Your task to perform on an android device: toggle pop-ups in chrome Image 0: 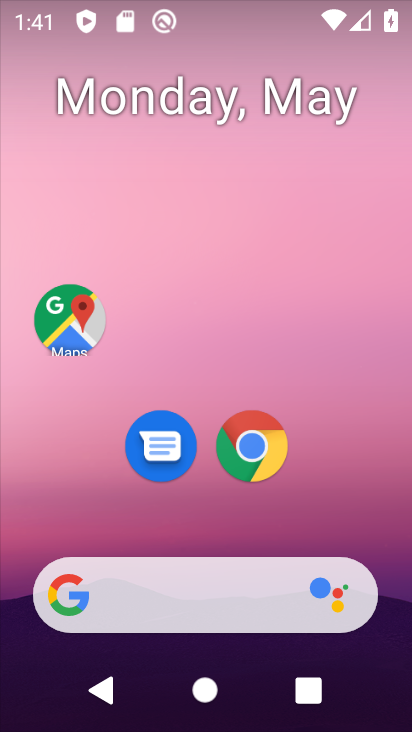
Step 0: drag from (354, 492) to (350, 87)
Your task to perform on an android device: toggle pop-ups in chrome Image 1: 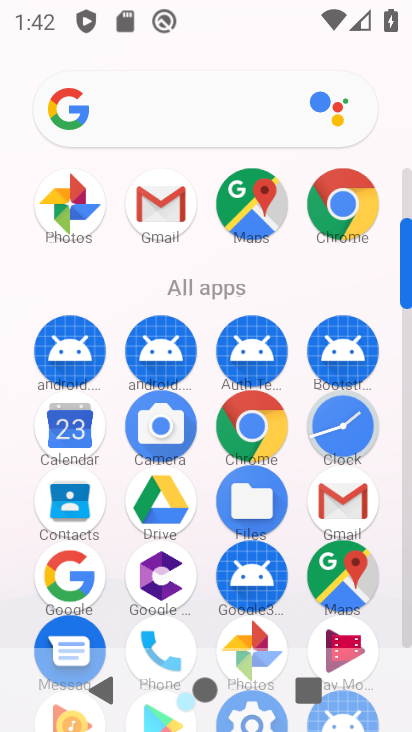
Step 1: click (234, 426)
Your task to perform on an android device: toggle pop-ups in chrome Image 2: 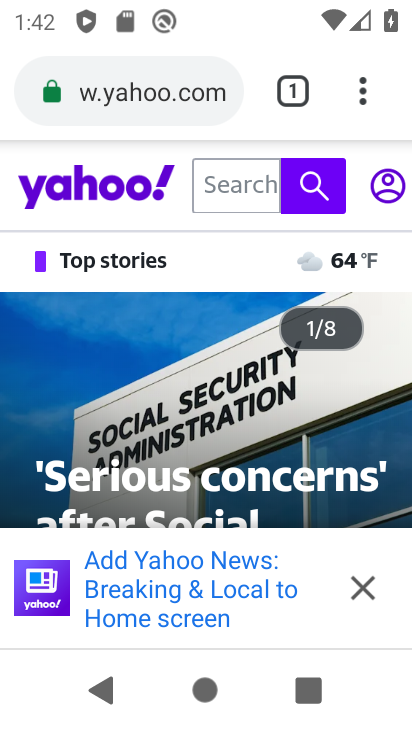
Step 2: click (368, 587)
Your task to perform on an android device: toggle pop-ups in chrome Image 3: 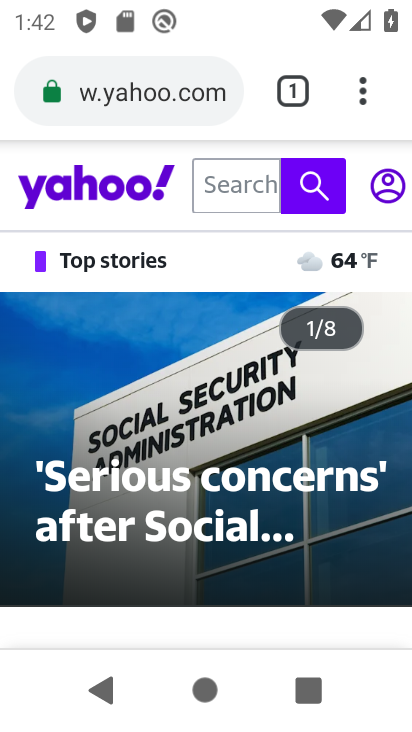
Step 3: drag from (361, 96) to (170, 489)
Your task to perform on an android device: toggle pop-ups in chrome Image 4: 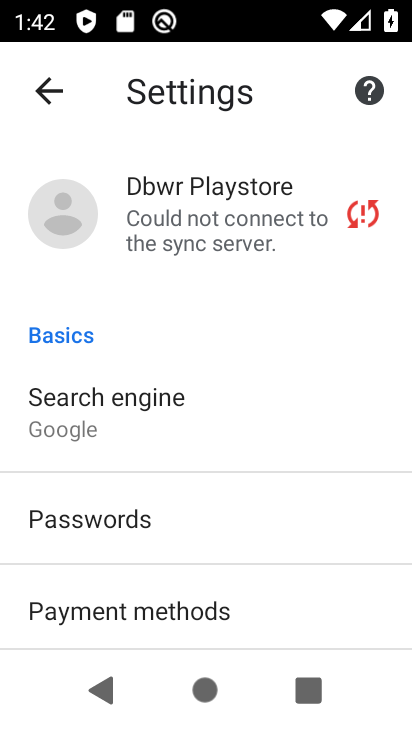
Step 4: drag from (255, 556) to (291, 242)
Your task to perform on an android device: toggle pop-ups in chrome Image 5: 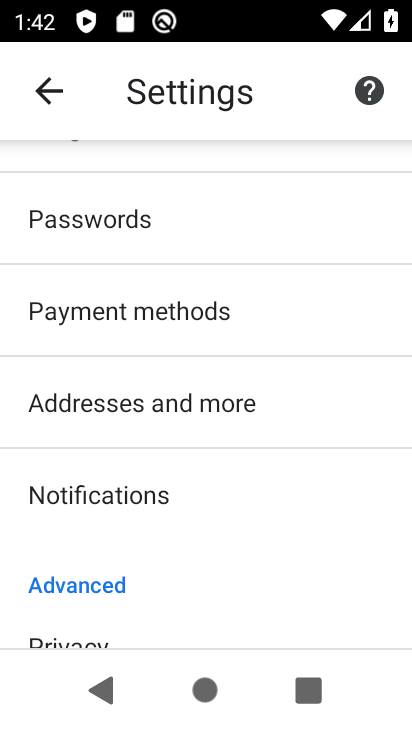
Step 5: drag from (255, 554) to (296, 287)
Your task to perform on an android device: toggle pop-ups in chrome Image 6: 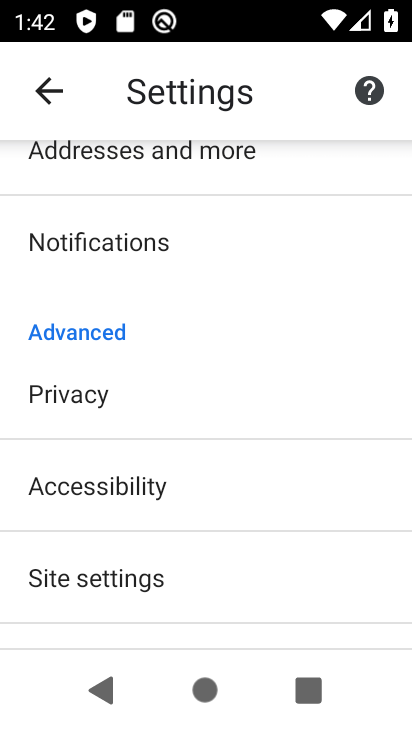
Step 6: click (160, 572)
Your task to perform on an android device: toggle pop-ups in chrome Image 7: 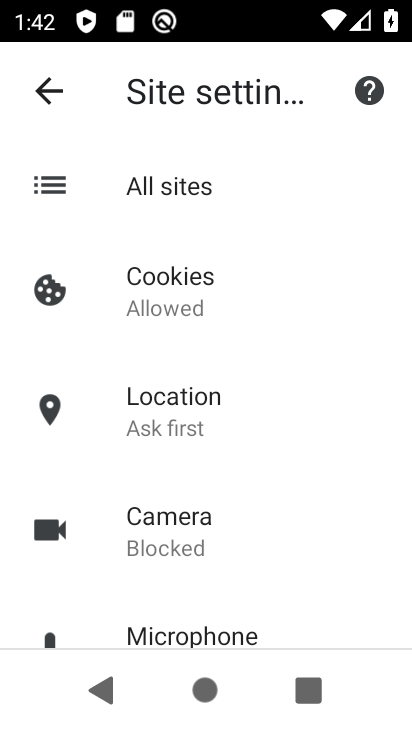
Step 7: drag from (238, 565) to (279, 305)
Your task to perform on an android device: toggle pop-ups in chrome Image 8: 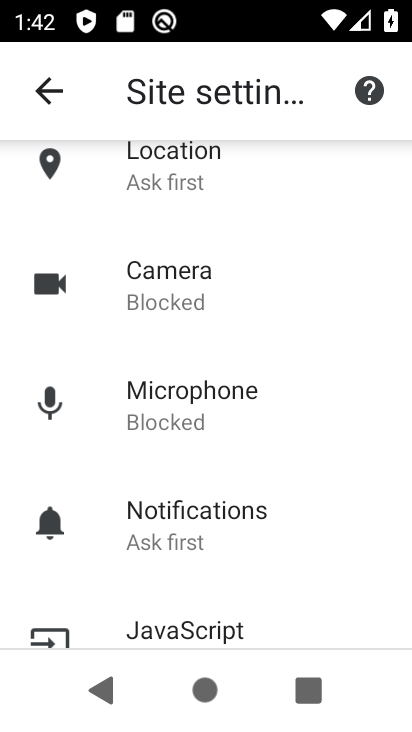
Step 8: drag from (240, 571) to (276, 335)
Your task to perform on an android device: toggle pop-ups in chrome Image 9: 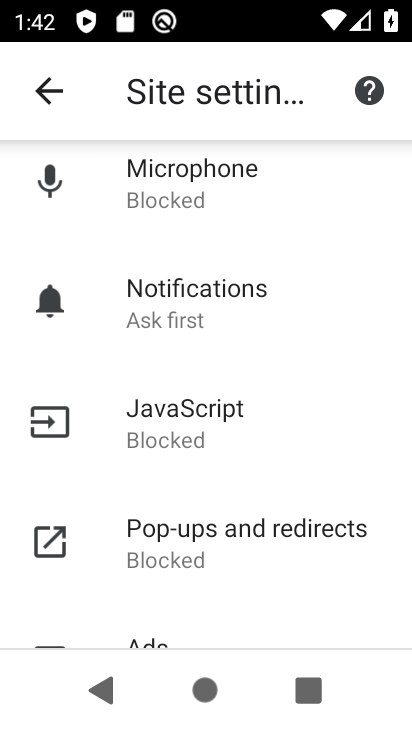
Step 9: drag from (220, 560) to (250, 456)
Your task to perform on an android device: toggle pop-ups in chrome Image 10: 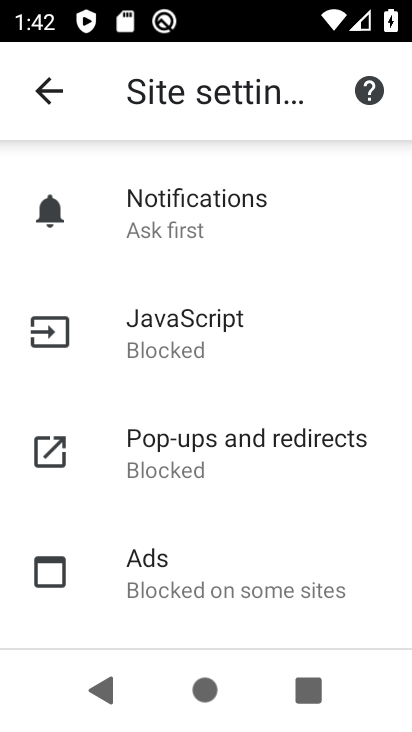
Step 10: click (243, 444)
Your task to perform on an android device: toggle pop-ups in chrome Image 11: 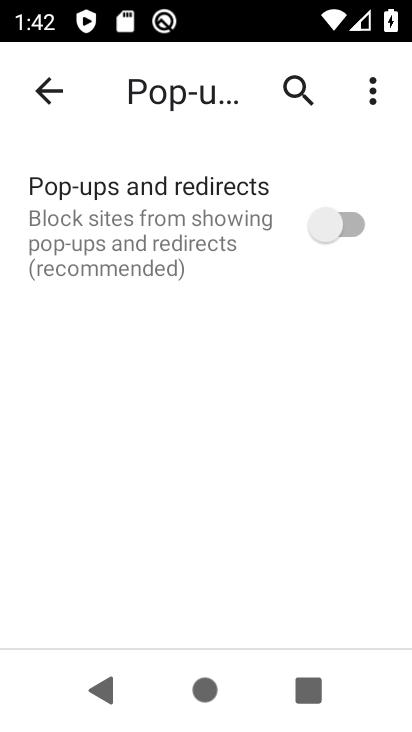
Step 11: click (344, 223)
Your task to perform on an android device: toggle pop-ups in chrome Image 12: 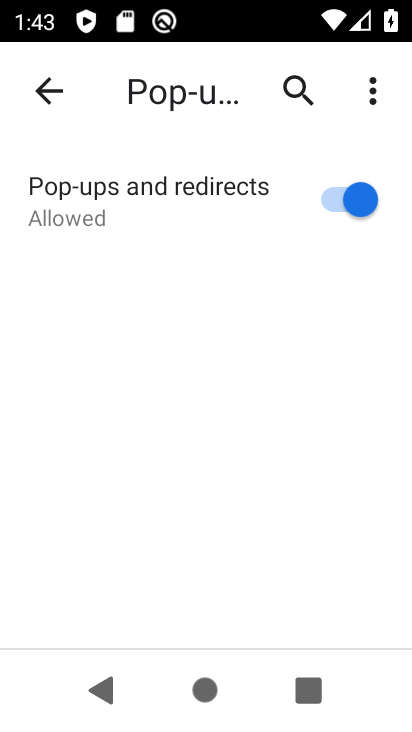
Step 12: task complete